Your task to perform on an android device: turn off notifications in google photos Image 0: 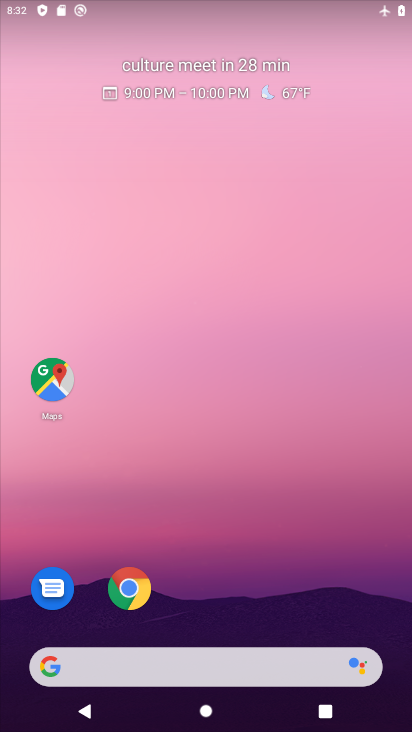
Step 0: drag from (291, 593) to (341, 3)
Your task to perform on an android device: turn off notifications in google photos Image 1: 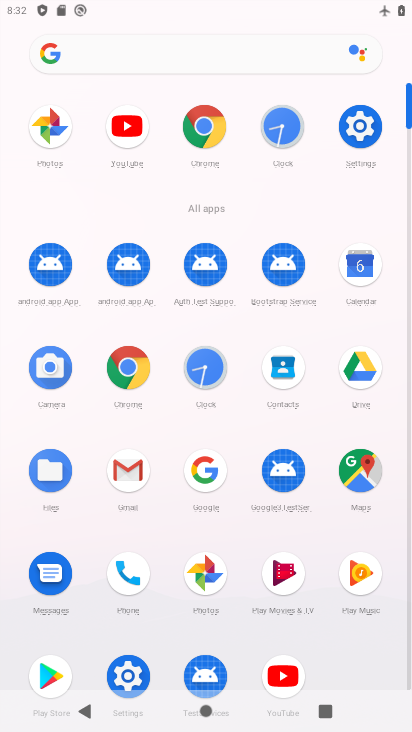
Step 1: click (207, 606)
Your task to perform on an android device: turn off notifications in google photos Image 2: 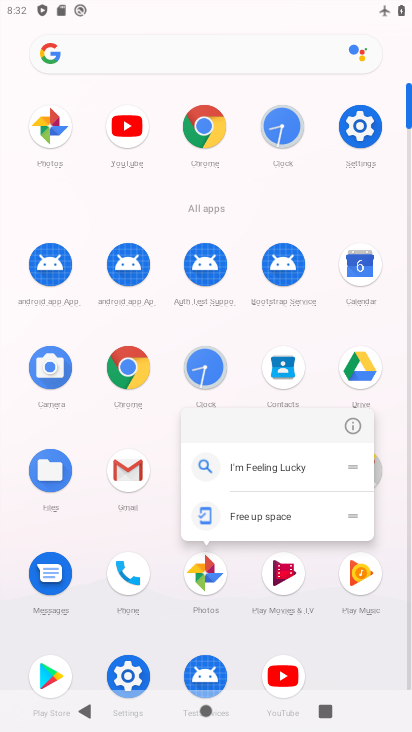
Step 2: click (211, 585)
Your task to perform on an android device: turn off notifications in google photos Image 3: 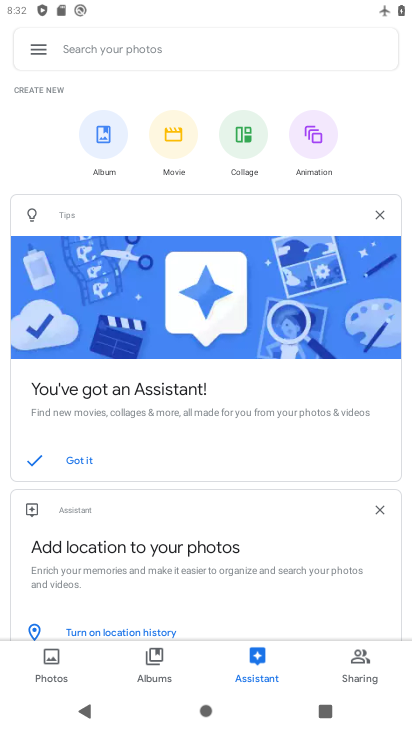
Step 3: click (45, 54)
Your task to perform on an android device: turn off notifications in google photos Image 4: 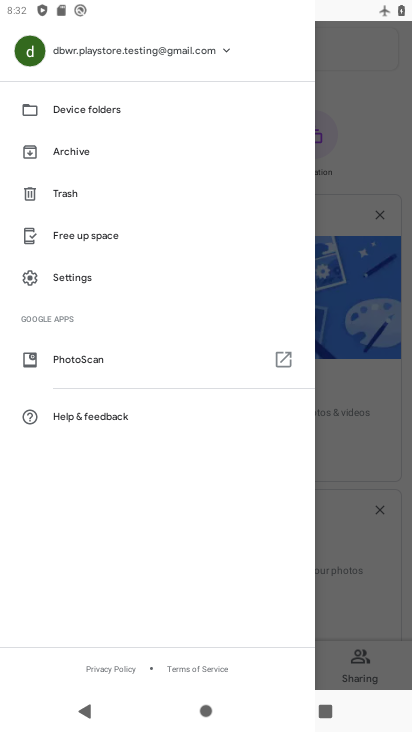
Step 4: click (67, 278)
Your task to perform on an android device: turn off notifications in google photos Image 5: 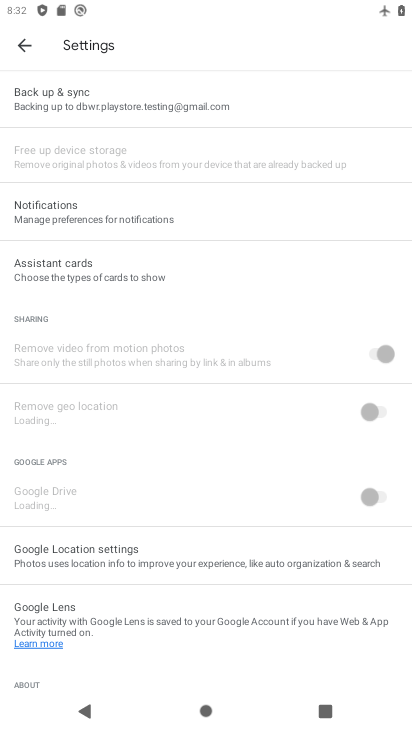
Step 5: click (90, 209)
Your task to perform on an android device: turn off notifications in google photos Image 6: 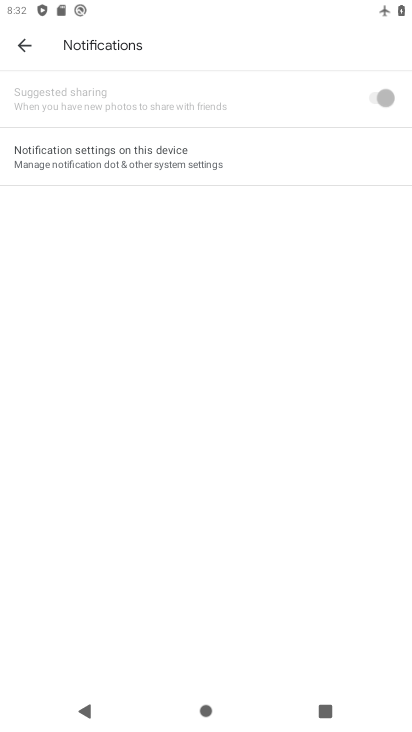
Step 6: click (378, 93)
Your task to perform on an android device: turn off notifications in google photos Image 7: 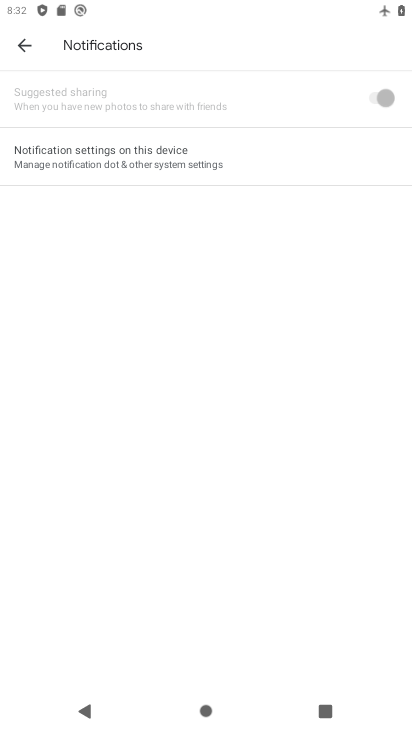
Step 7: task complete